Your task to perform on an android device: turn off sleep mode Image 0: 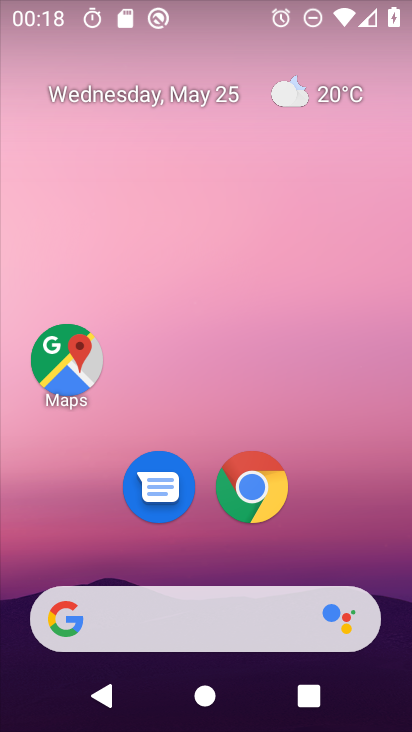
Step 0: drag from (374, 583) to (353, 15)
Your task to perform on an android device: turn off sleep mode Image 1: 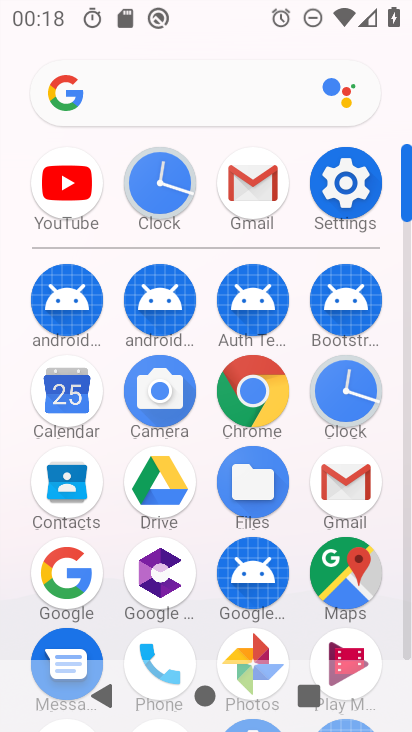
Step 1: click (345, 189)
Your task to perform on an android device: turn off sleep mode Image 2: 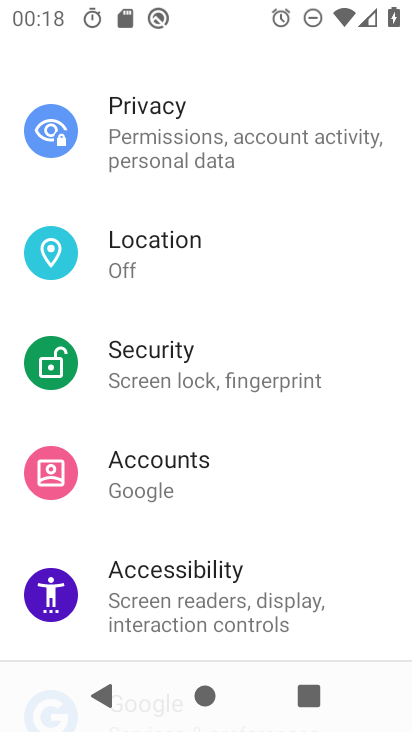
Step 2: drag from (265, 309) to (276, 549)
Your task to perform on an android device: turn off sleep mode Image 3: 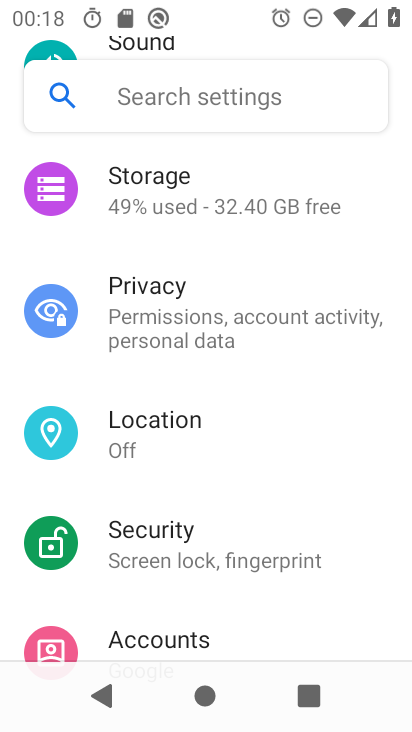
Step 3: drag from (232, 317) to (269, 602)
Your task to perform on an android device: turn off sleep mode Image 4: 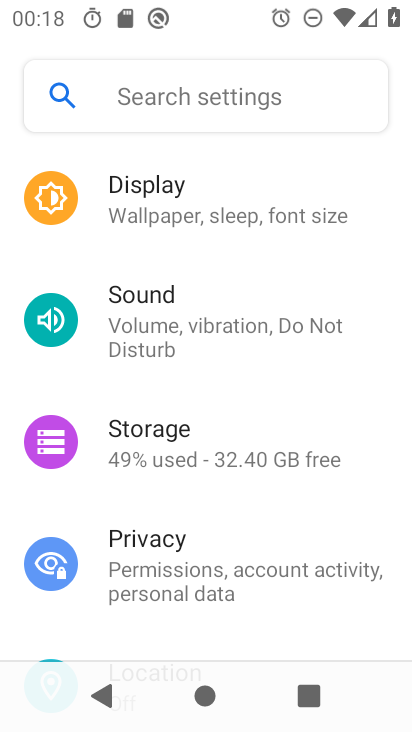
Step 4: click (181, 228)
Your task to perform on an android device: turn off sleep mode Image 5: 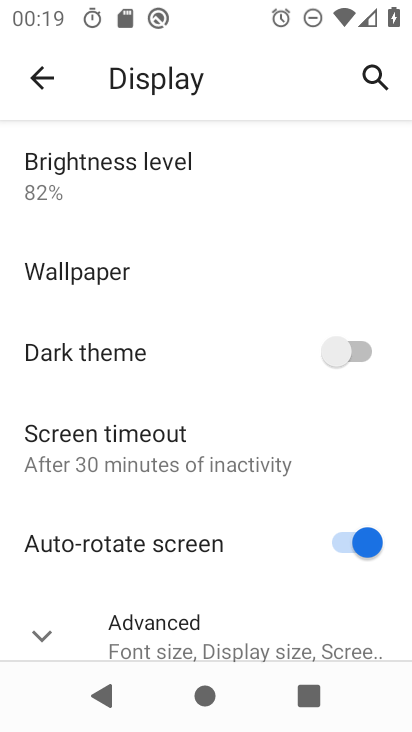
Step 5: click (45, 640)
Your task to perform on an android device: turn off sleep mode Image 6: 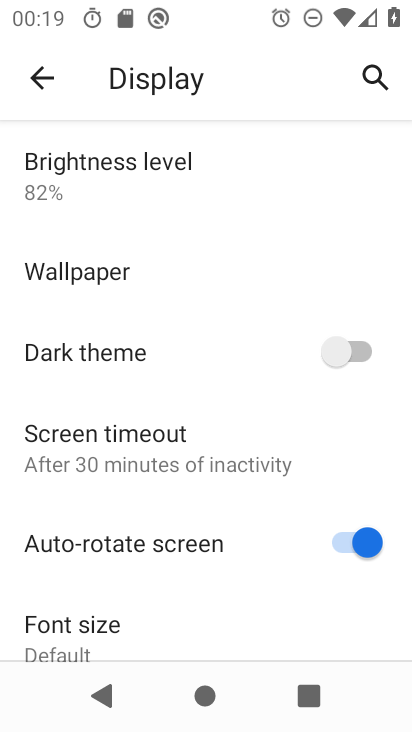
Step 6: task complete